Your task to perform on an android device: set an alarm Image 0: 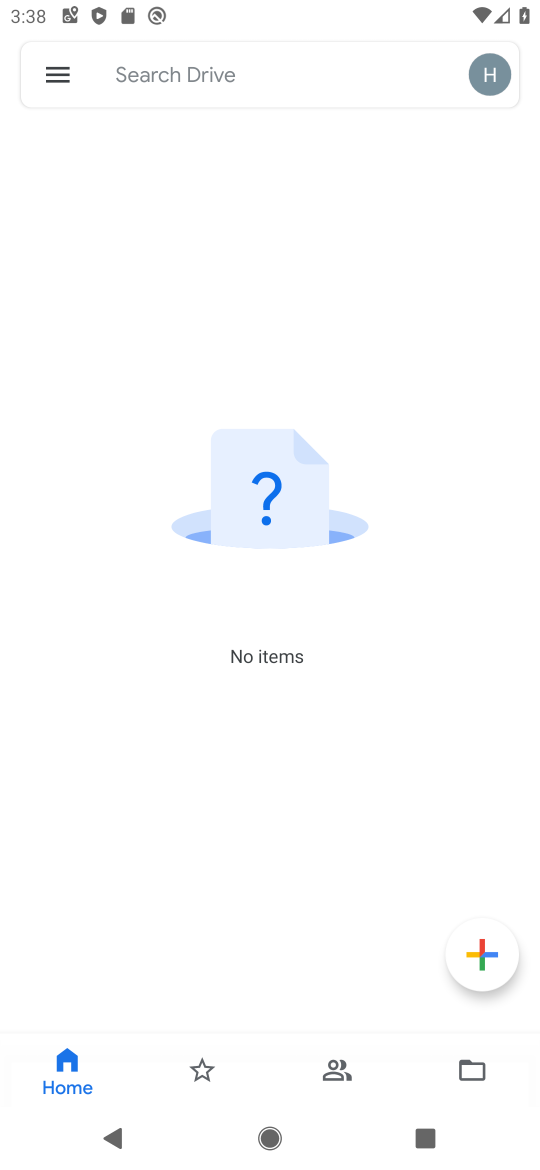
Step 0: press home button
Your task to perform on an android device: set an alarm Image 1: 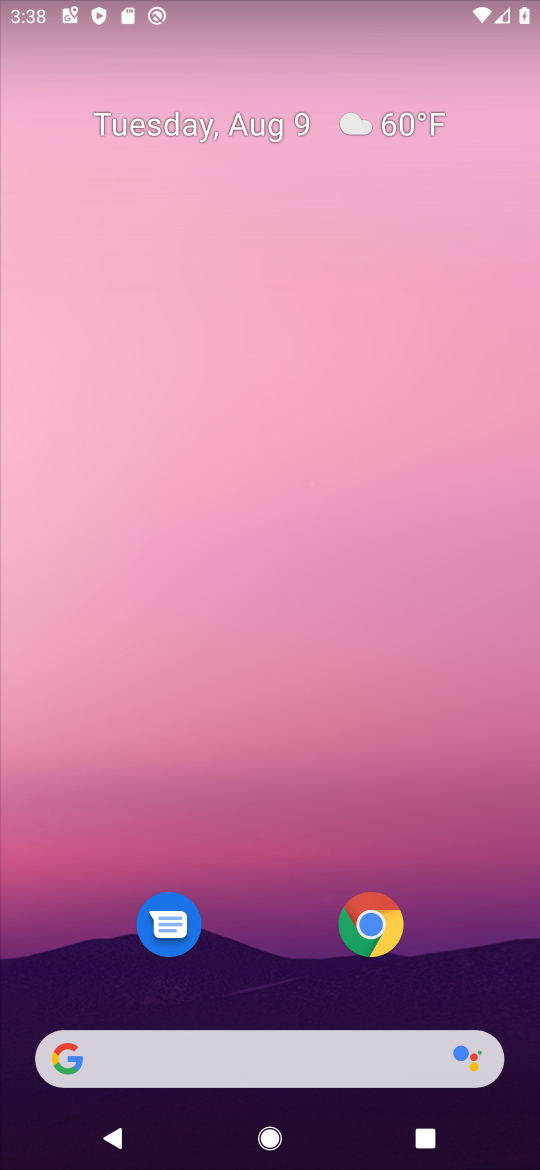
Step 1: drag from (260, 930) to (322, 0)
Your task to perform on an android device: set an alarm Image 2: 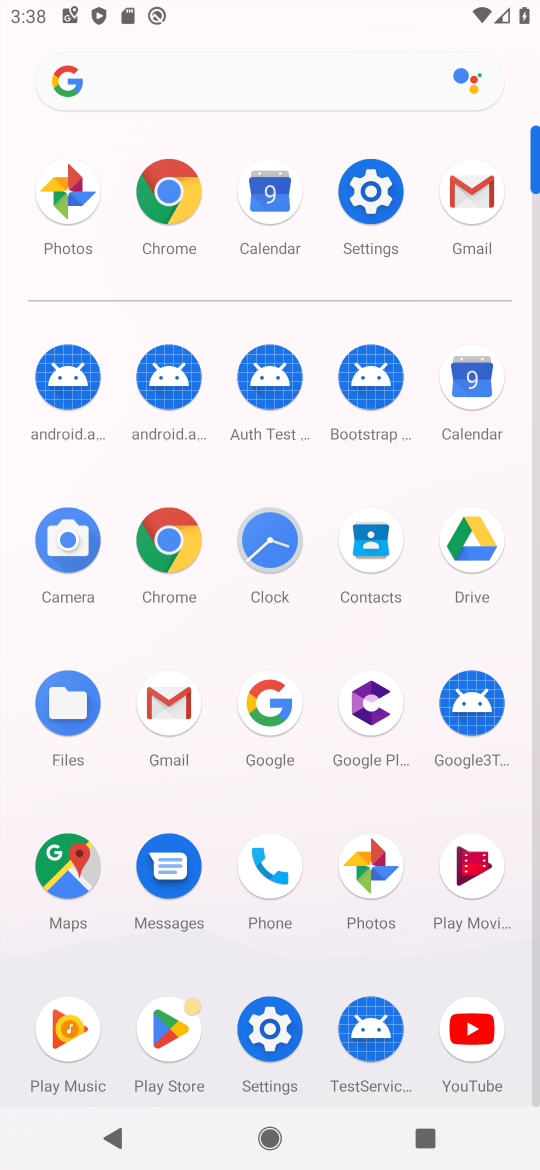
Step 2: click (279, 546)
Your task to perform on an android device: set an alarm Image 3: 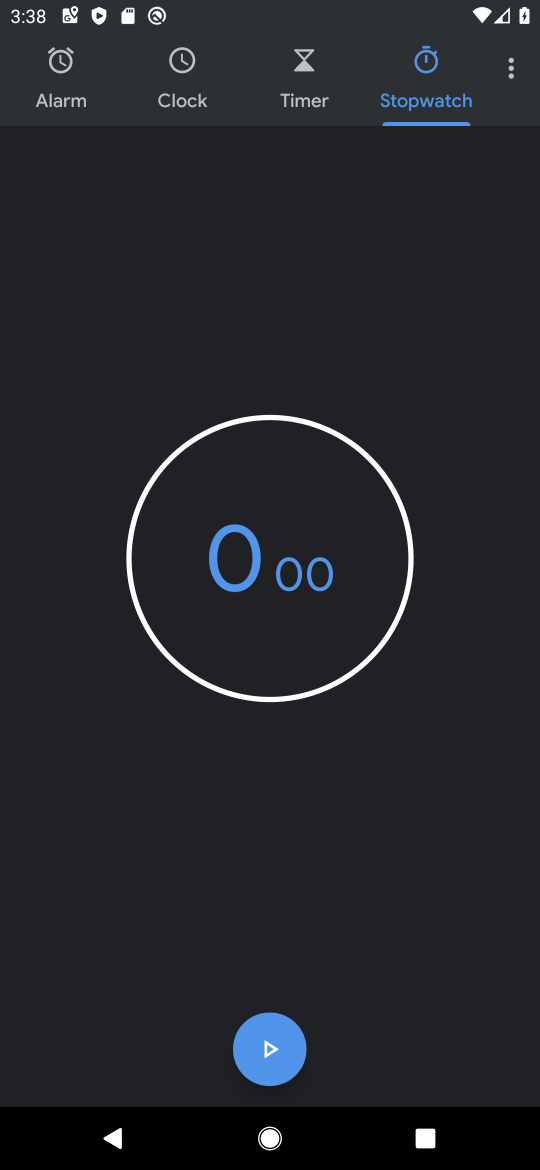
Step 3: click (66, 71)
Your task to perform on an android device: set an alarm Image 4: 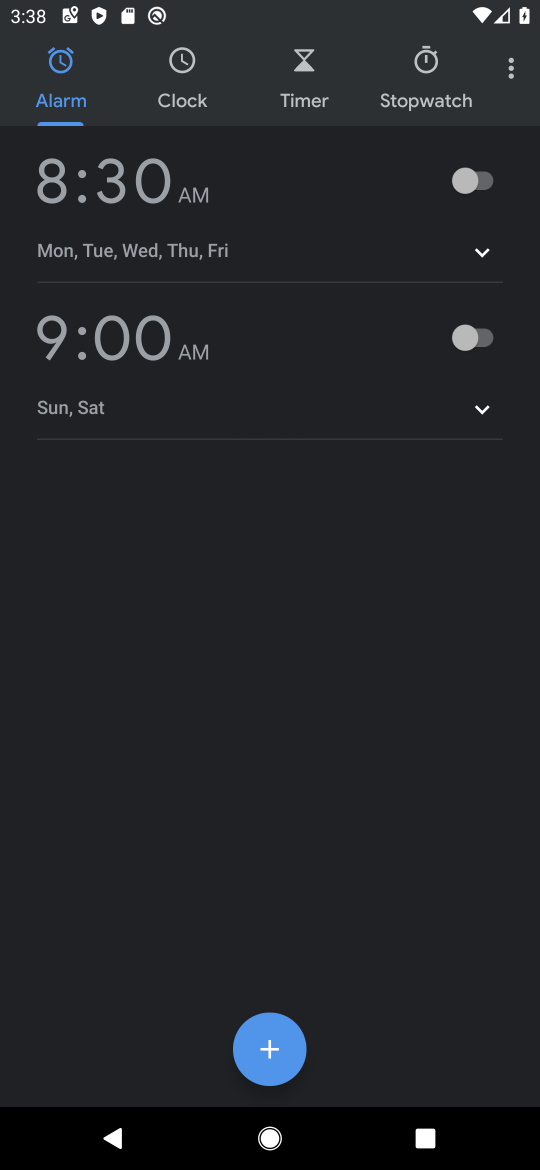
Step 4: click (275, 1053)
Your task to perform on an android device: set an alarm Image 5: 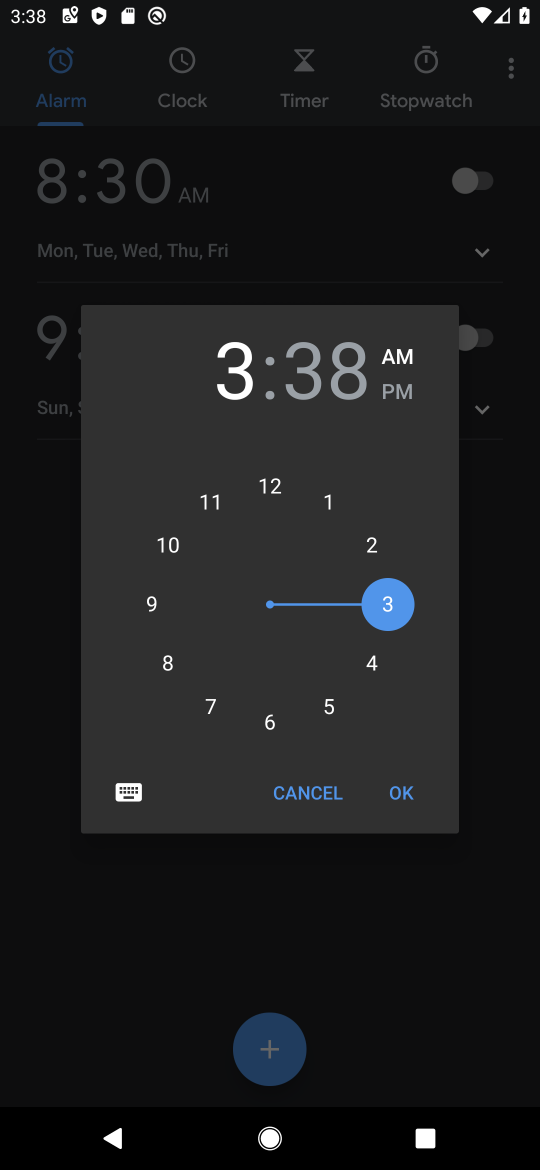
Step 5: click (344, 364)
Your task to perform on an android device: set an alarm Image 6: 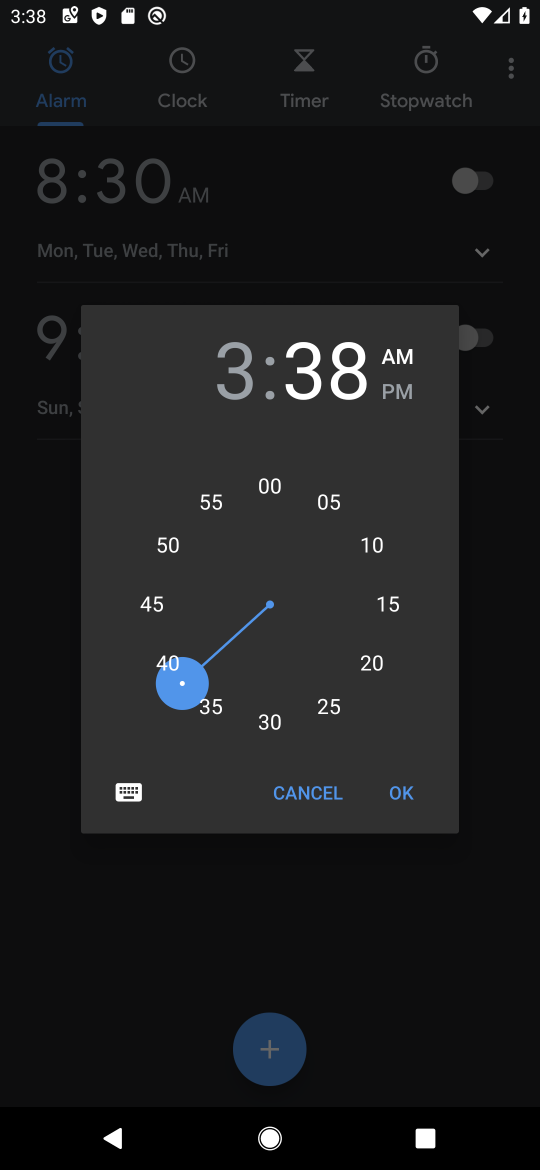
Step 6: click (276, 733)
Your task to perform on an android device: set an alarm Image 7: 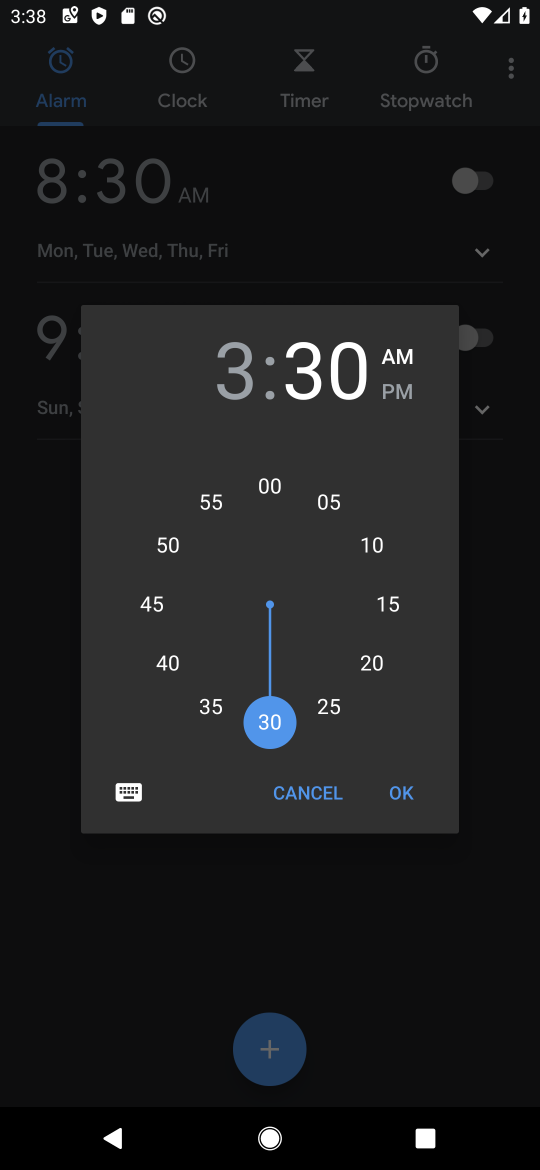
Step 7: click (402, 783)
Your task to perform on an android device: set an alarm Image 8: 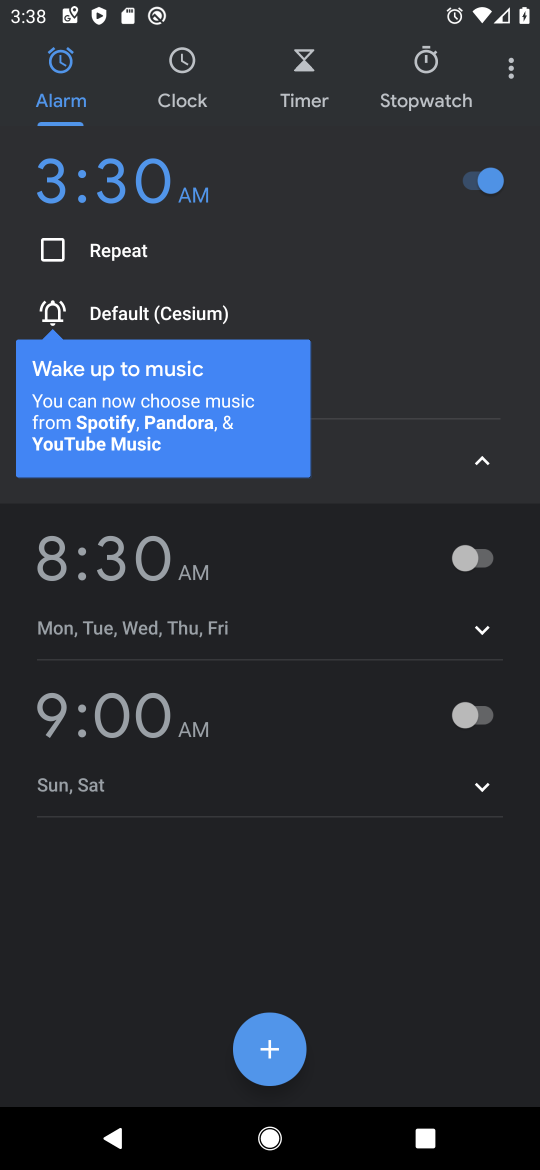
Step 8: task complete